Your task to perform on an android device: clear all cookies in the chrome app Image 0: 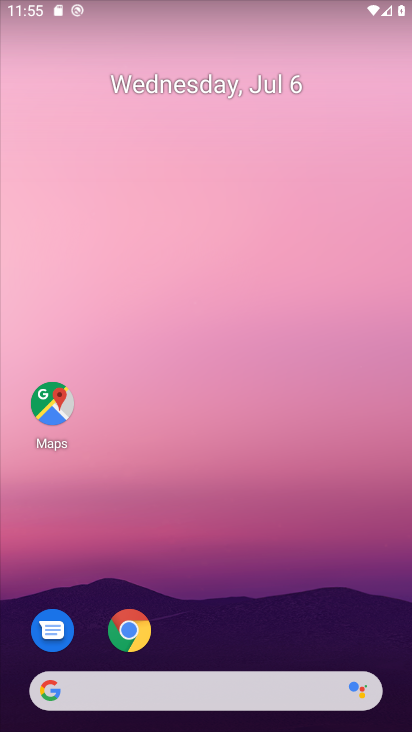
Step 0: drag from (222, 635) to (232, 318)
Your task to perform on an android device: clear all cookies in the chrome app Image 1: 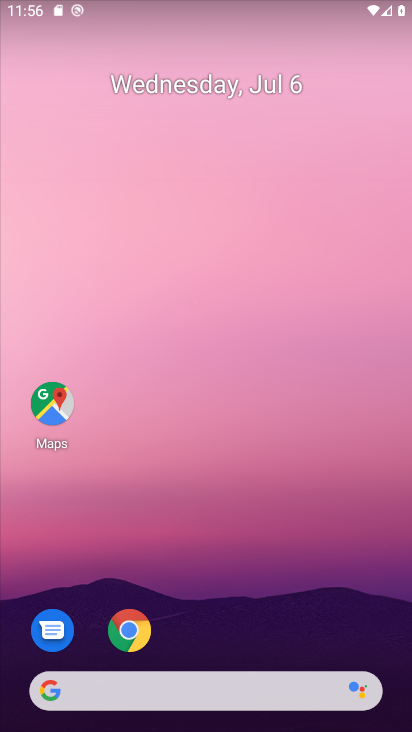
Step 1: drag from (260, 602) to (264, 261)
Your task to perform on an android device: clear all cookies in the chrome app Image 2: 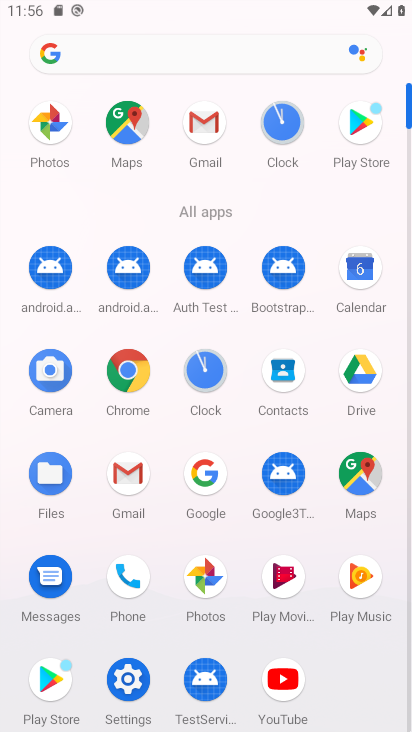
Step 2: click (130, 361)
Your task to perform on an android device: clear all cookies in the chrome app Image 3: 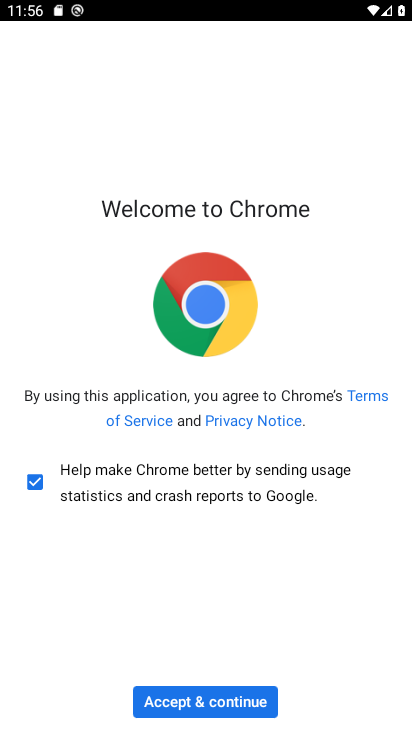
Step 3: click (214, 680)
Your task to perform on an android device: clear all cookies in the chrome app Image 4: 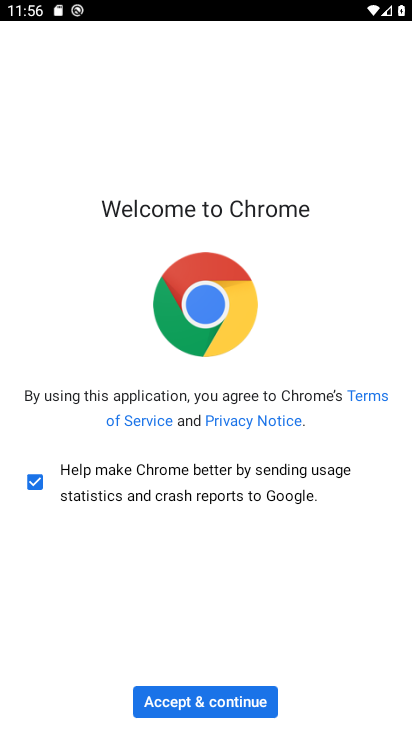
Step 4: click (230, 704)
Your task to perform on an android device: clear all cookies in the chrome app Image 5: 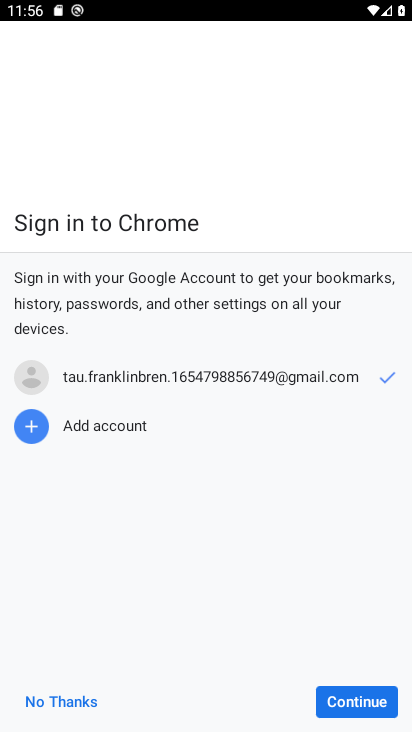
Step 5: click (371, 696)
Your task to perform on an android device: clear all cookies in the chrome app Image 6: 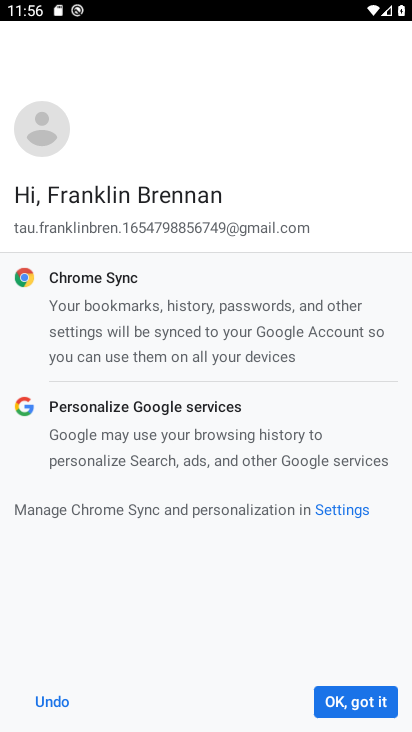
Step 6: click (371, 696)
Your task to perform on an android device: clear all cookies in the chrome app Image 7: 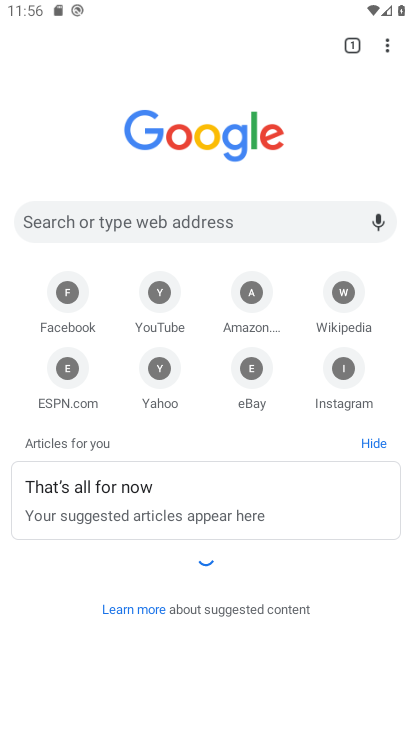
Step 7: click (384, 45)
Your task to perform on an android device: clear all cookies in the chrome app Image 8: 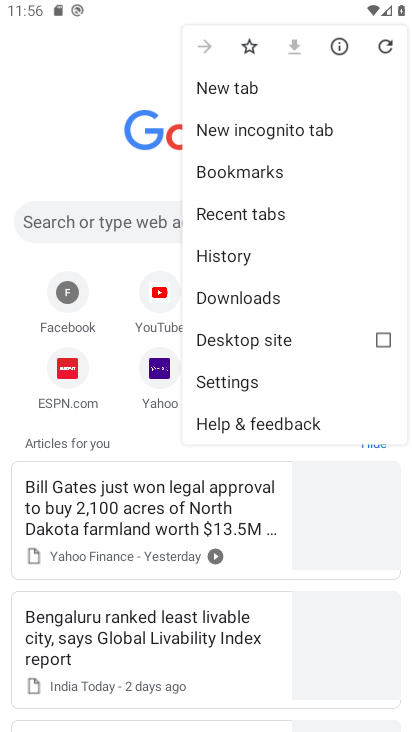
Step 8: click (251, 376)
Your task to perform on an android device: clear all cookies in the chrome app Image 9: 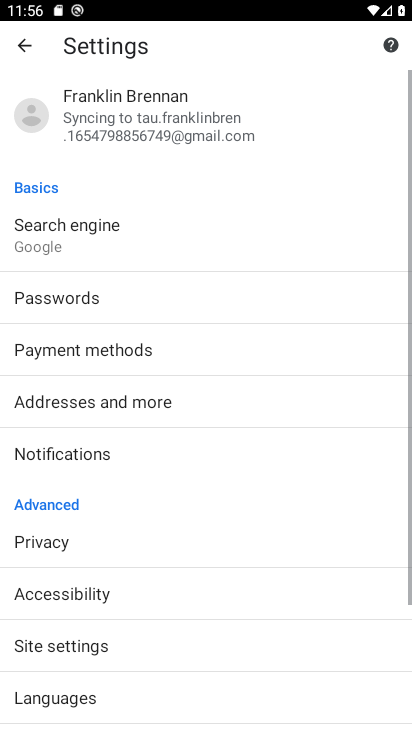
Step 9: drag from (165, 587) to (221, 236)
Your task to perform on an android device: clear all cookies in the chrome app Image 10: 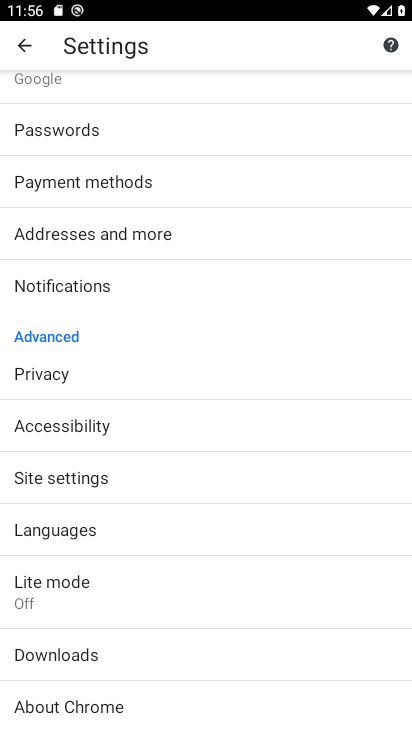
Step 10: click (88, 365)
Your task to perform on an android device: clear all cookies in the chrome app Image 11: 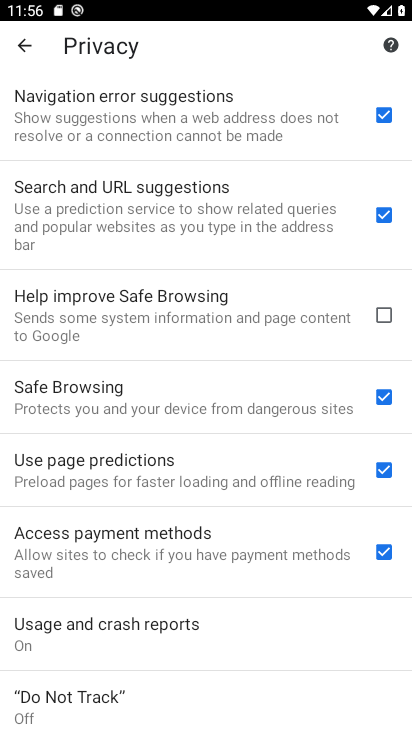
Step 11: drag from (263, 585) to (307, 203)
Your task to perform on an android device: clear all cookies in the chrome app Image 12: 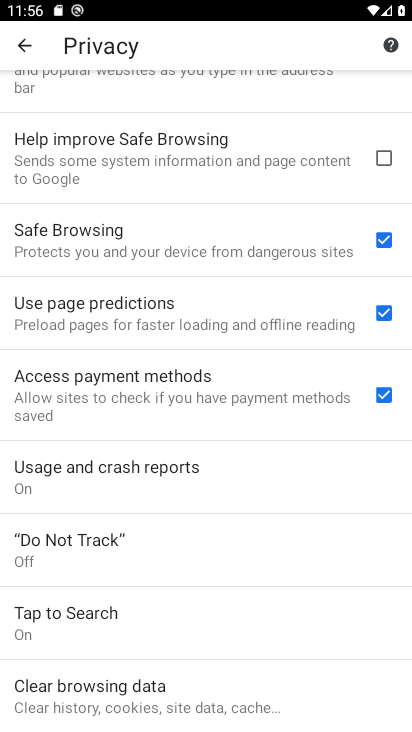
Step 12: drag from (192, 575) to (166, 212)
Your task to perform on an android device: clear all cookies in the chrome app Image 13: 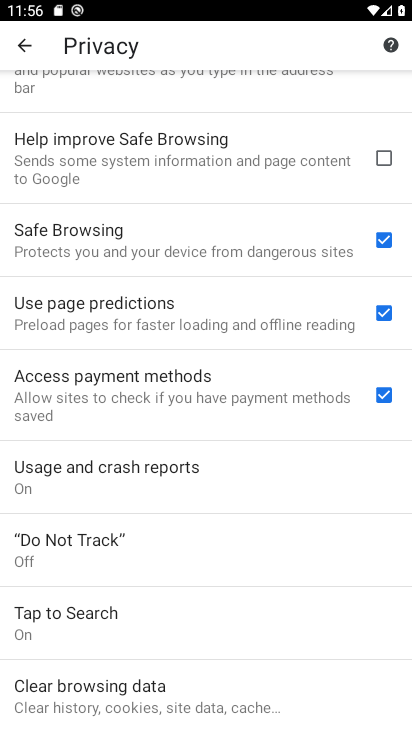
Step 13: click (173, 691)
Your task to perform on an android device: clear all cookies in the chrome app Image 14: 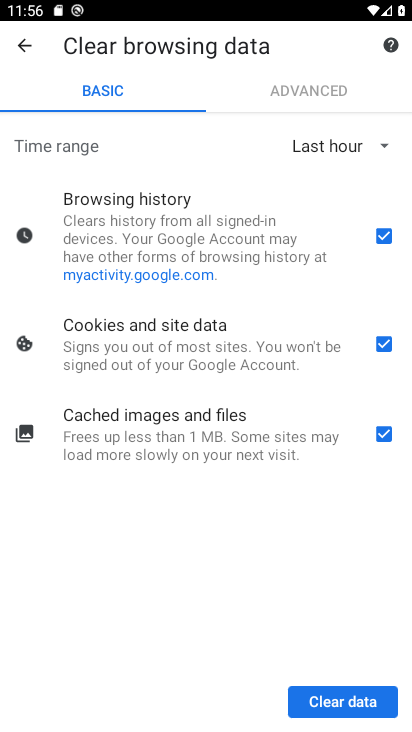
Step 14: click (343, 699)
Your task to perform on an android device: clear all cookies in the chrome app Image 15: 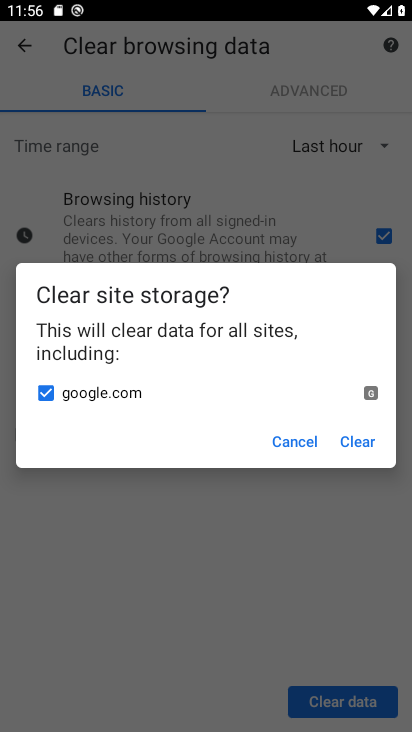
Step 15: click (337, 429)
Your task to perform on an android device: clear all cookies in the chrome app Image 16: 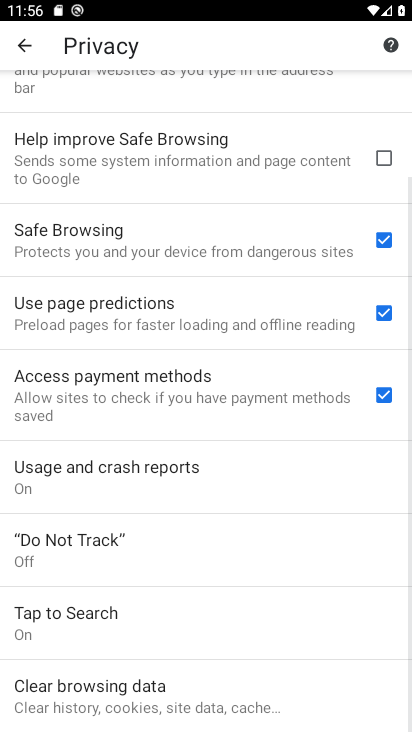
Step 16: task complete